Your task to perform on an android device: turn off notifications settings in the gmail app Image 0: 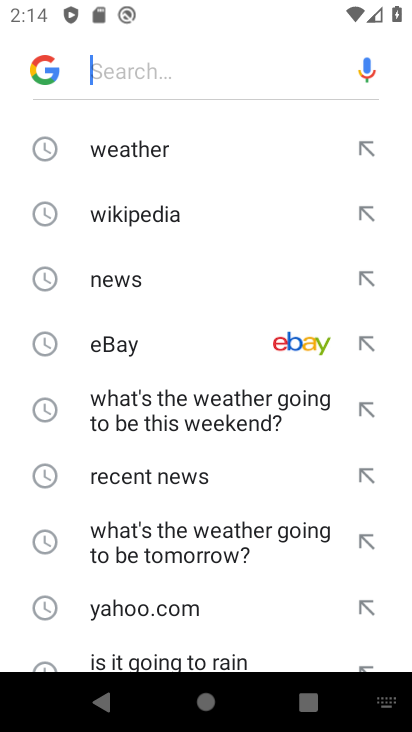
Step 0: press home button
Your task to perform on an android device: turn off notifications settings in the gmail app Image 1: 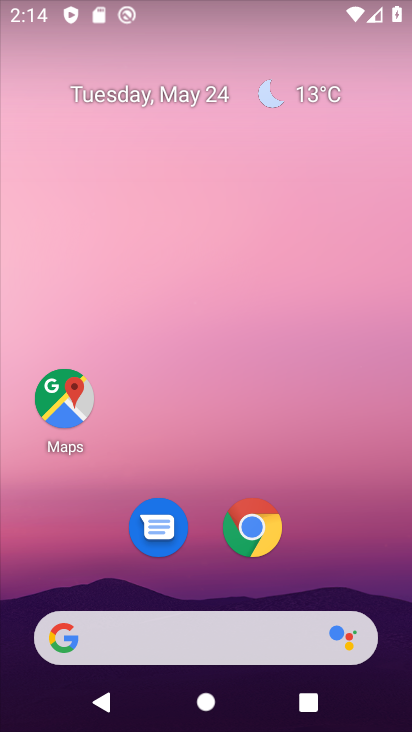
Step 1: click (259, 526)
Your task to perform on an android device: turn off notifications settings in the gmail app Image 2: 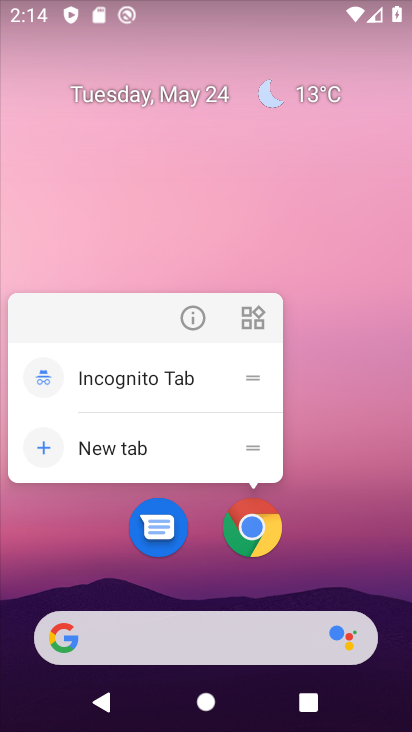
Step 2: click (259, 526)
Your task to perform on an android device: turn off notifications settings in the gmail app Image 3: 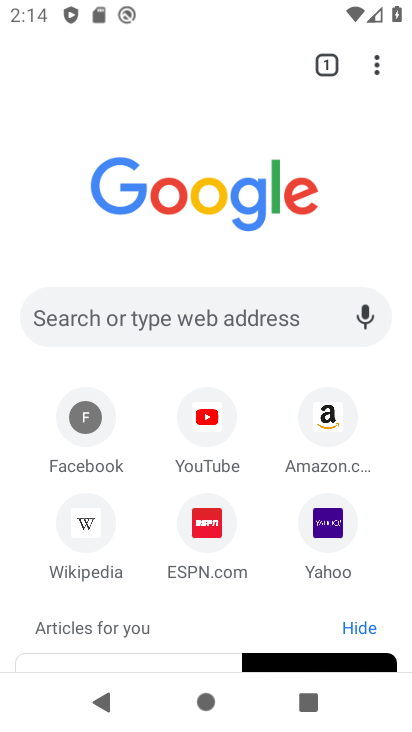
Step 3: click (377, 66)
Your task to perform on an android device: turn off notifications settings in the gmail app Image 4: 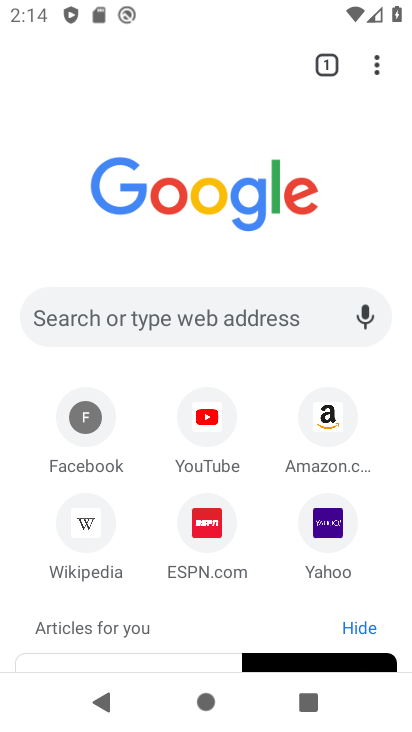
Step 4: click (377, 77)
Your task to perform on an android device: turn off notifications settings in the gmail app Image 5: 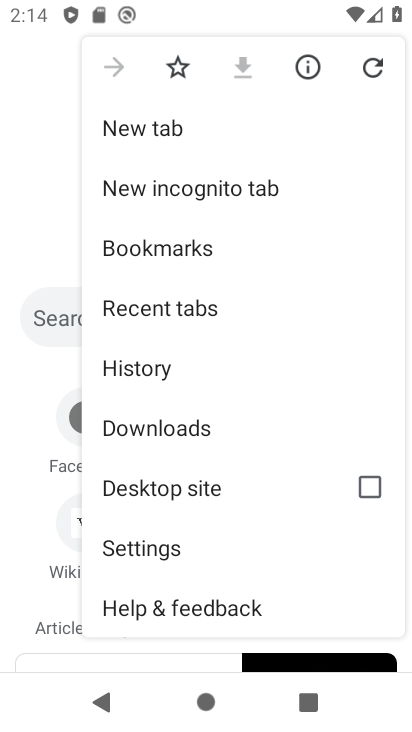
Step 5: click (212, 555)
Your task to perform on an android device: turn off notifications settings in the gmail app Image 6: 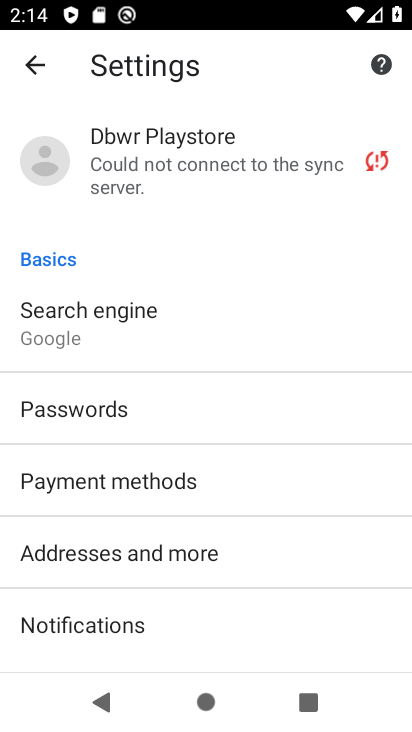
Step 6: click (110, 620)
Your task to perform on an android device: turn off notifications settings in the gmail app Image 7: 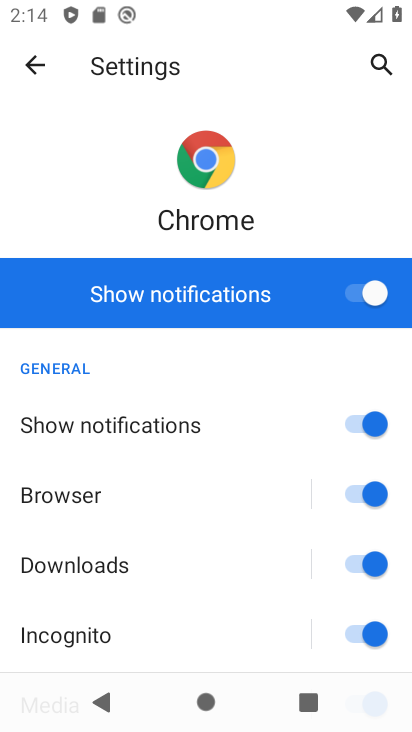
Step 7: click (365, 291)
Your task to perform on an android device: turn off notifications settings in the gmail app Image 8: 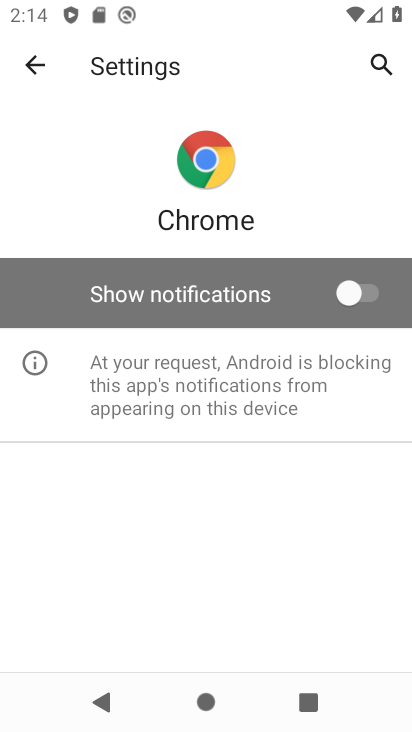
Step 8: task complete